Your task to perform on an android device: Go to Google Image 0: 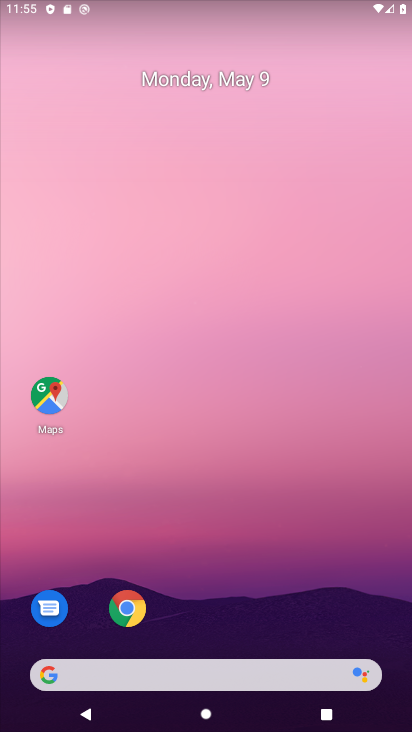
Step 0: drag from (236, 444) to (230, 31)
Your task to perform on an android device: Go to Google Image 1: 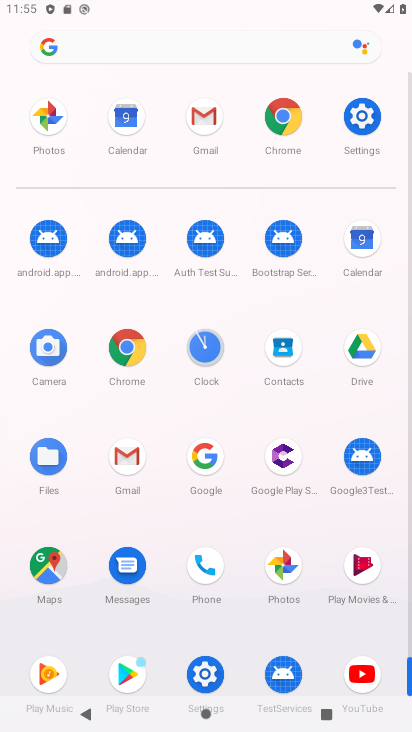
Step 1: drag from (8, 635) to (0, 330)
Your task to perform on an android device: Go to Google Image 2: 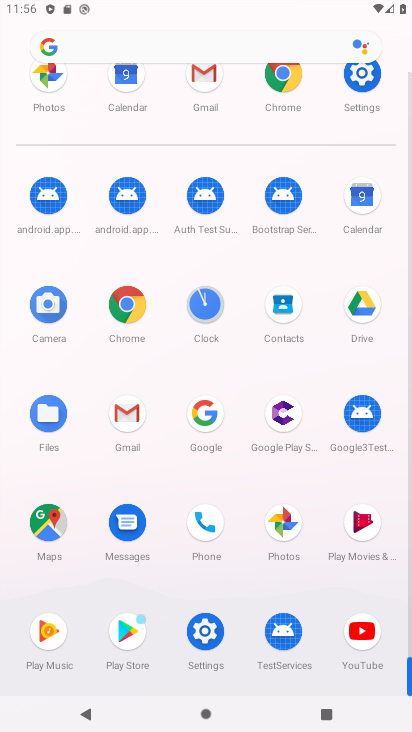
Step 2: click (130, 300)
Your task to perform on an android device: Go to Google Image 3: 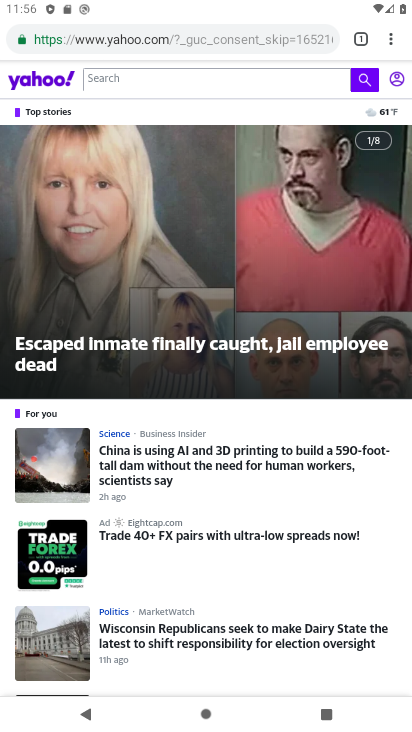
Step 3: click (173, 38)
Your task to perform on an android device: Go to Google Image 4: 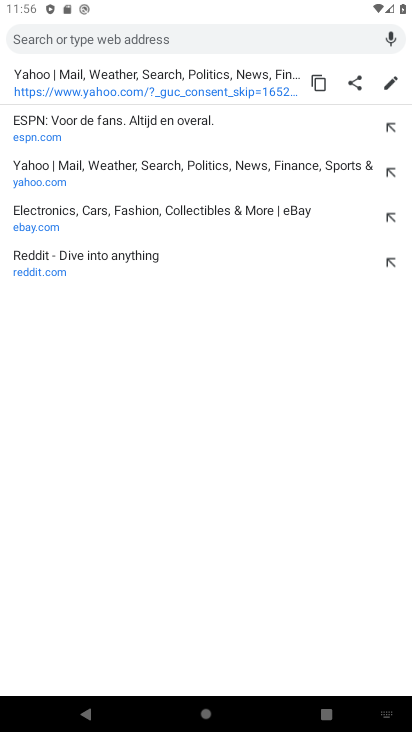
Step 4: type "Go to Google"
Your task to perform on an android device: Go to Google Image 5: 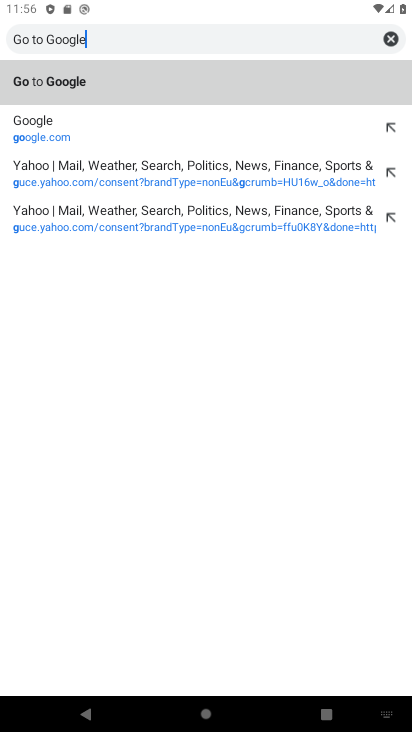
Step 5: type ""
Your task to perform on an android device: Go to Google Image 6: 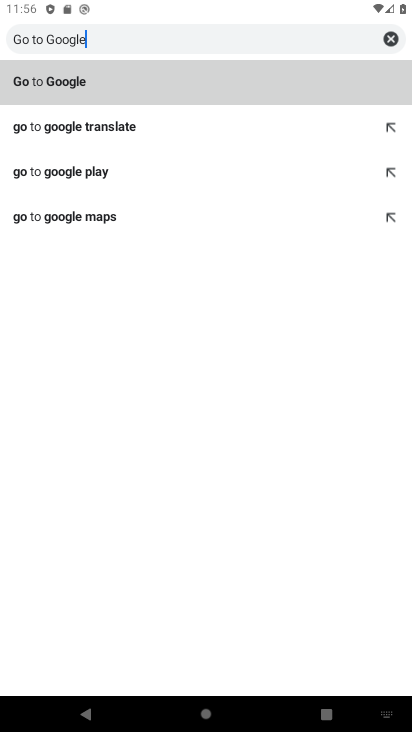
Step 6: click (102, 81)
Your task to perform on an android device: Go to Google Image 7: 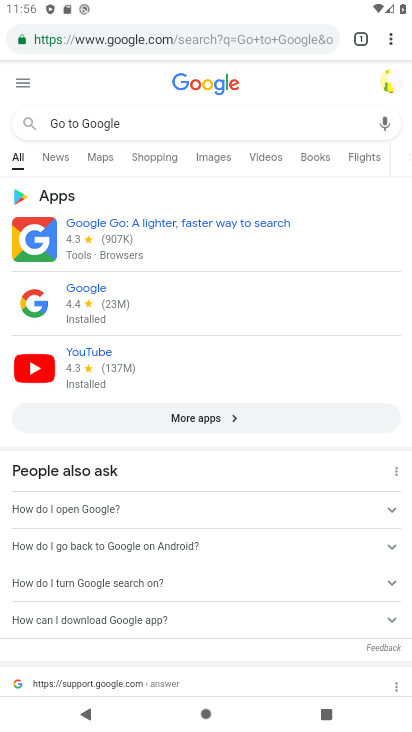
Step 7: drag from (183, 569) to (201, 166)
Your task to perform on an android device: Go to Google Image 8: 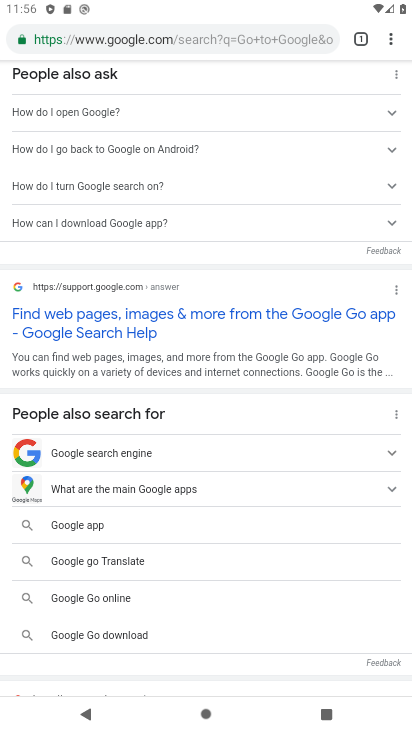
Step 8: drag from (169, 564) to (193, 252)
Your task to perform on an android device: Go to Google Image 9: 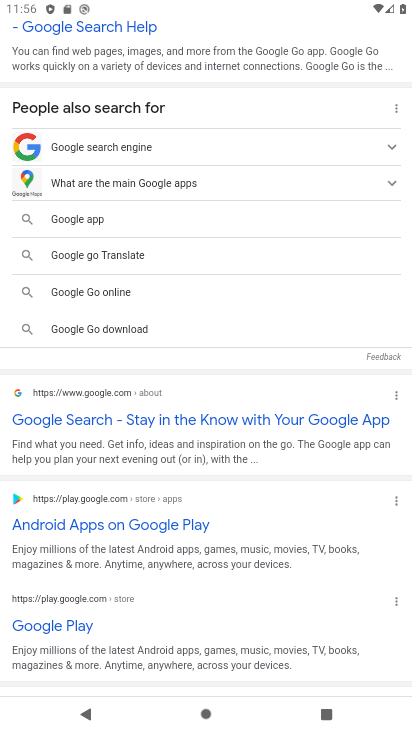
Step 9: click (126, 420)
Your task to perform on an android device: Go to Google Image 10: 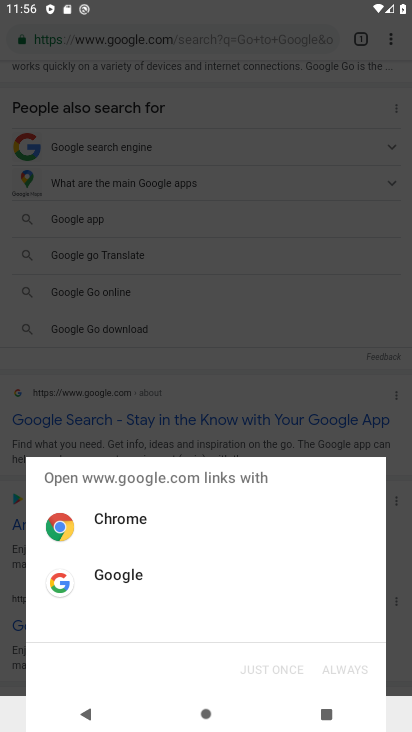
Step 10: click (142, 513)
Your task to perform on an android device: Go to Google Image 11: 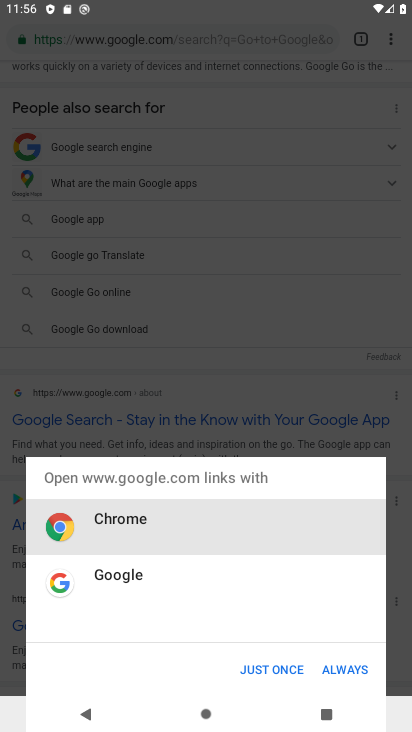
Step 11: click (265, 672)
Your task to perform on an android device: Go to Google Image 12: 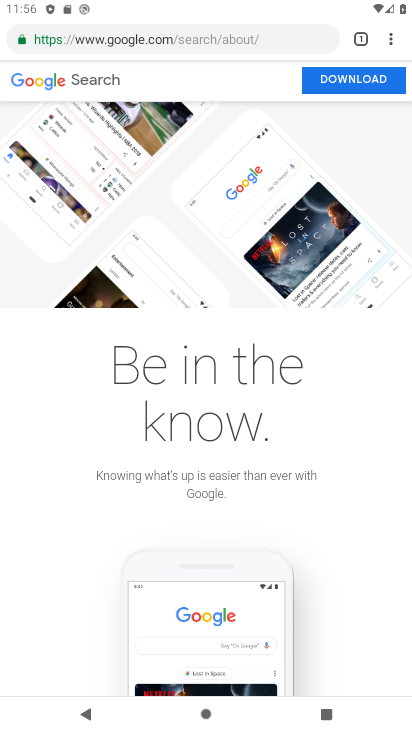
Step 12: click (90, 717)
Your task to perform on an android device: Go to Google Image 13: 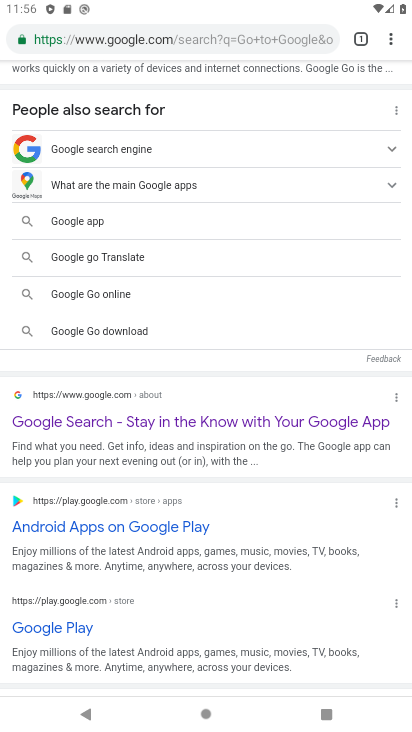
Step 13: click (181, 46)
Your task to perform on an android device: Go to Google Image 14: 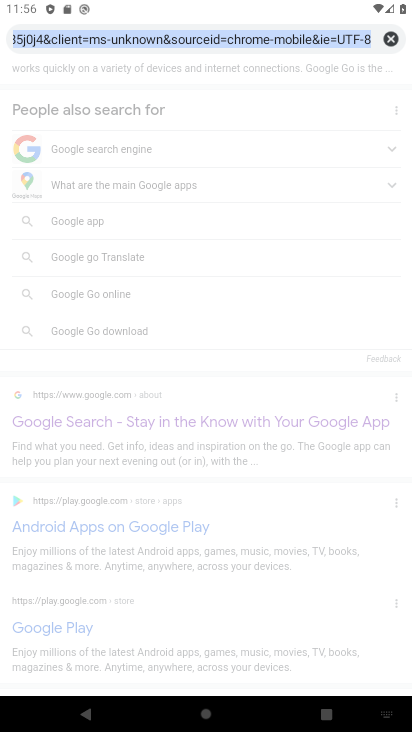
Step 14: click (390, 39)
Your task to perform on an android device: Go to Google Image 15: 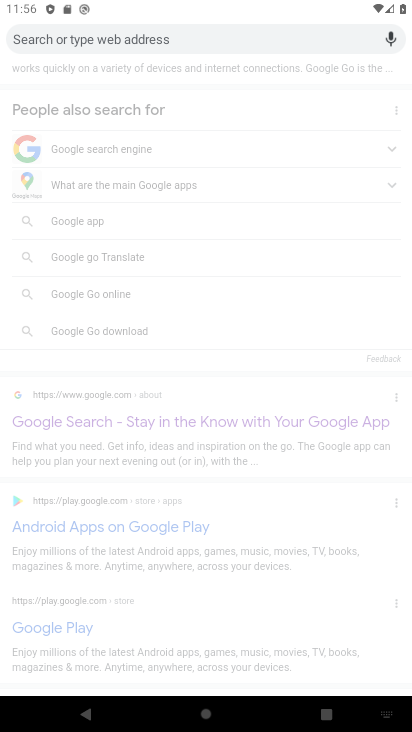
Step 15: type "Google"
Your task to perform on an android device: Go to Google Image 16: 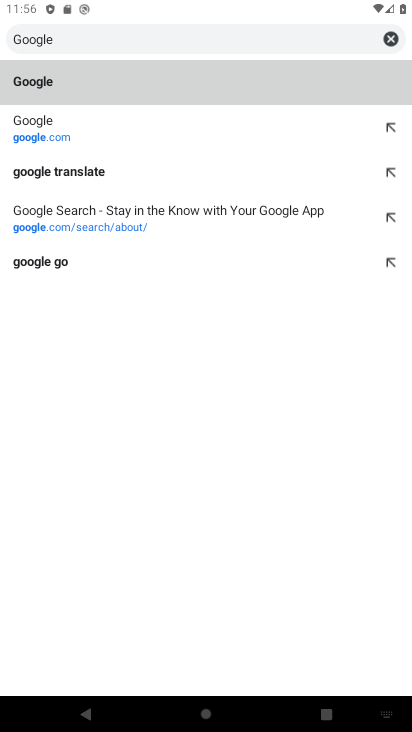
Step 16: type ""
Your task to perform on an android device: Go to Google Image 17: 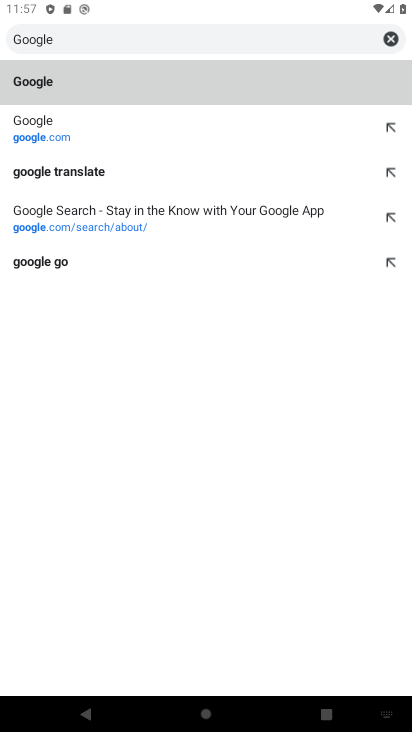
Step 17: click (104, 84)
Your task to perform on an android device: Go to Google Image 18: 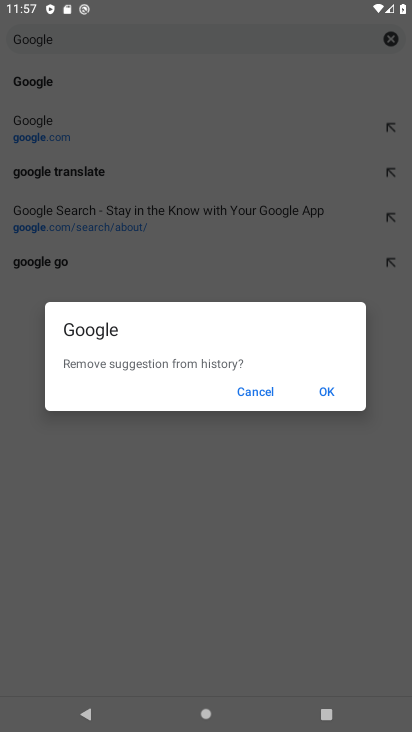
Step 18: click (261, 391)
Your task to perform on an android device: Go to Google Image 19: 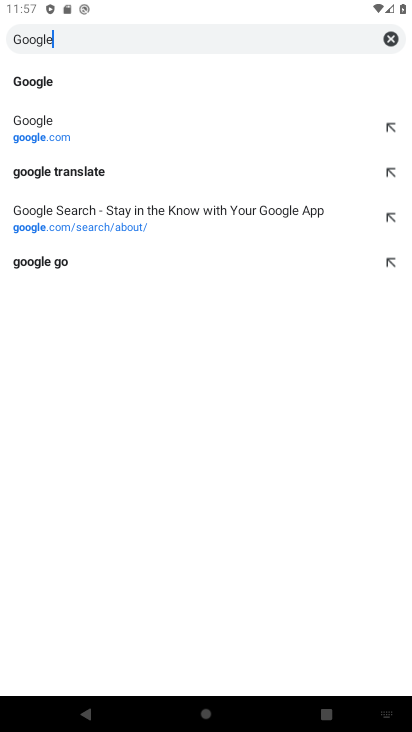
Step 19: click (58, 134)
Your task to perform on an android device: Go to Google Image 20: 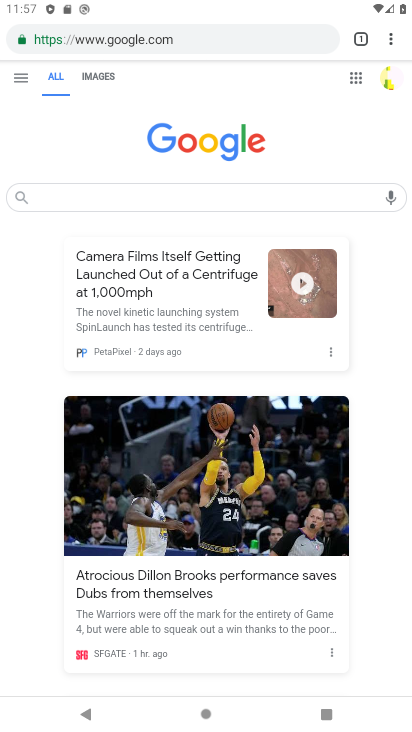
Step 20: task complete